Your task to perform on an android device: check google app version Image 0: 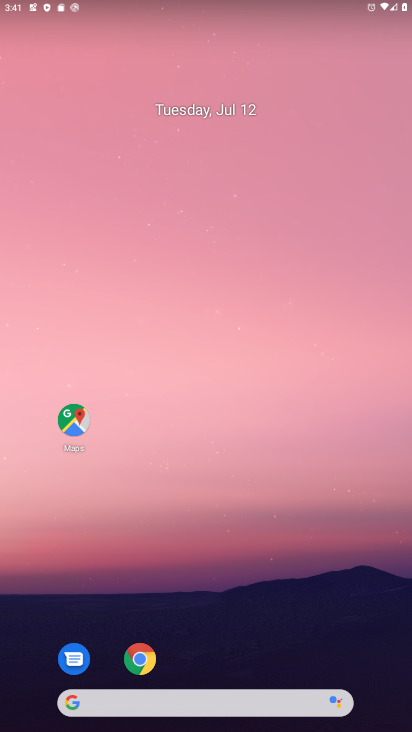
Step 0: click (166, 703)
Your task to perform on an android device: check google app version Image 1: 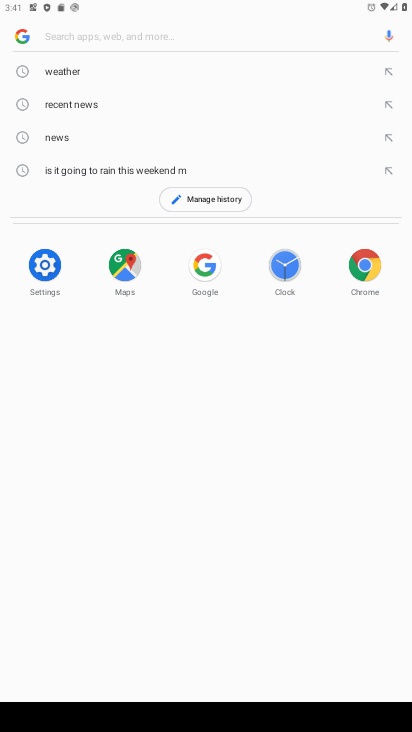
Step 1: click (24, 37)
Your task to perform on an android device: check google app version Image 2: 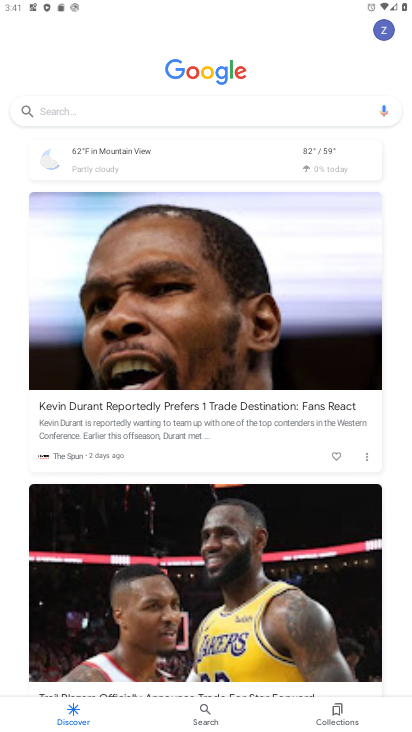
Step 2: click (379, 35)
Your task to perform on an android device: check google app version Image 3: 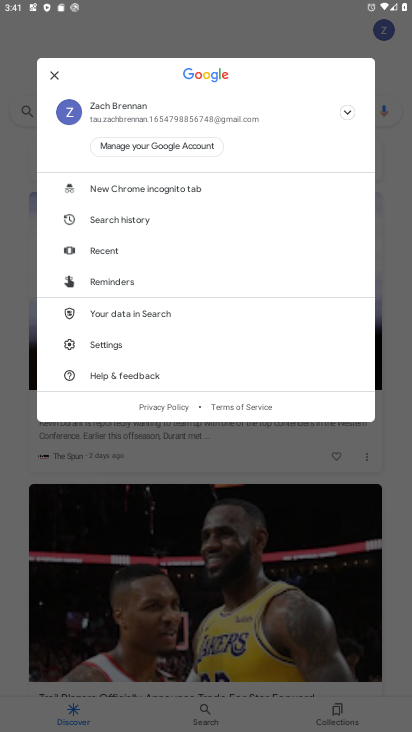
Step 3: click (106, 339)
Your task to perform on an android device: check google app version Image 4: 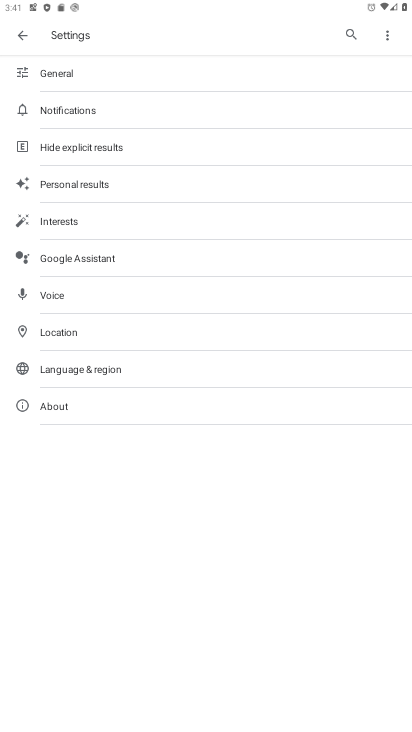
Step 4: click (64, 410)
Your task to perform on an android device: check google app version Image 5: 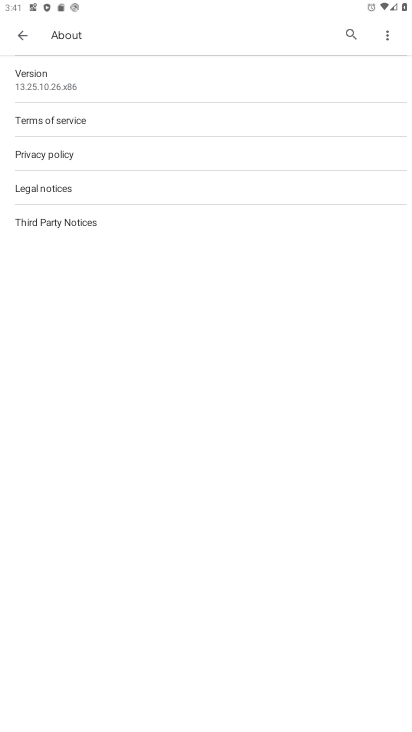
Step 5: task complete